Your task to perform on an android device: Open location settings Image 0: 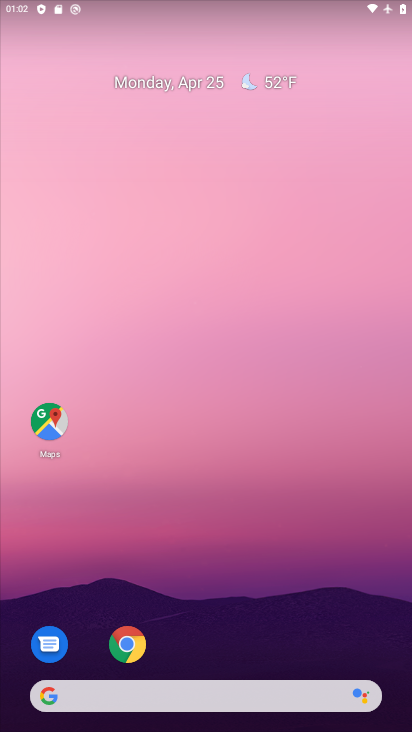
Step 0: drag from (195, 636) to (143, 176)
Your task to perform on an android device: Open location settings Image 1: 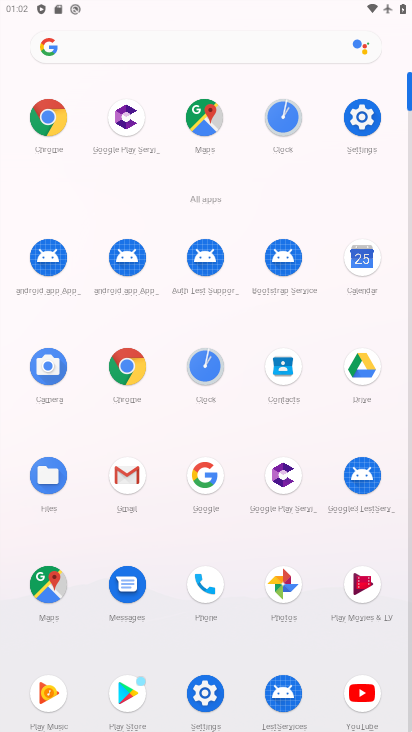
Step 1: click (358, 133)
Your task to perform on an android device: Open location settings Image 2: 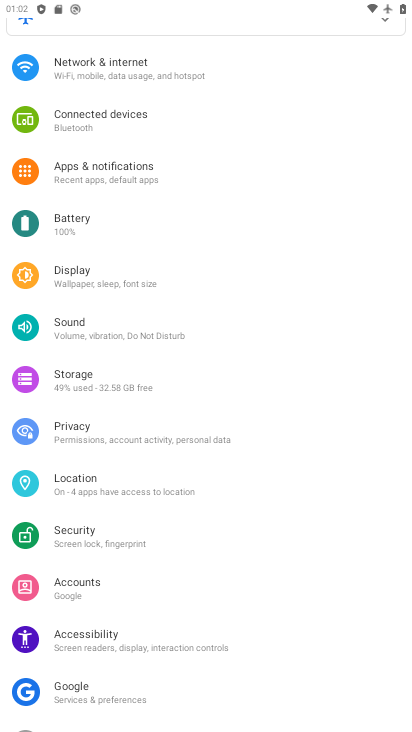
Step 2: click (132, 495)
Your task to perform on an android device: Open location settings Image 3: 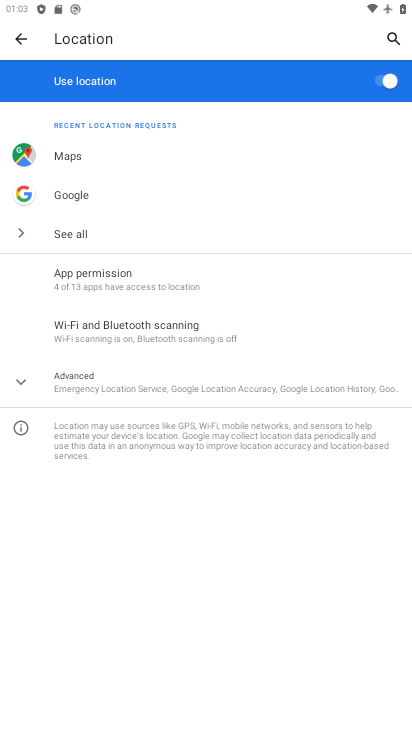
Step 3: task complete